Your task to perform on an android device: turn vacation reply on in the gmail app Image 0: 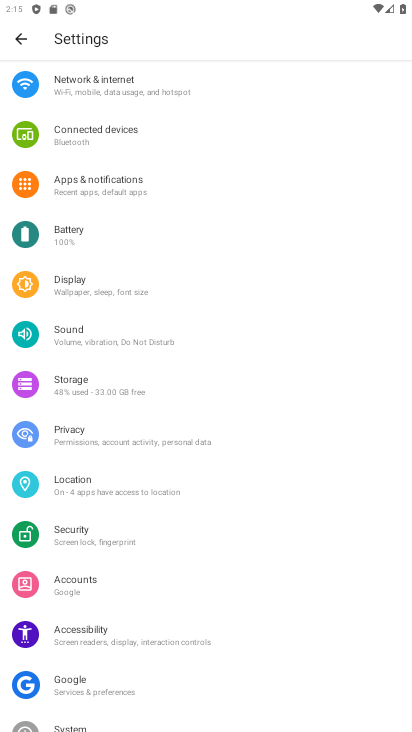
Step 0: press home button
Your task to perform on an android device: turn vacation reply on in the gmail app Image 1: 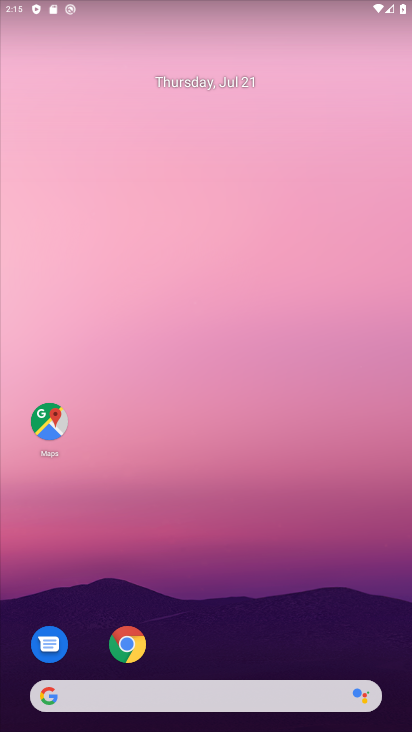
Step 1: drag from (298, 625) to (248, 195)
Your task to perform on an android device: turn vacation reply on in the gmail app Image 2: 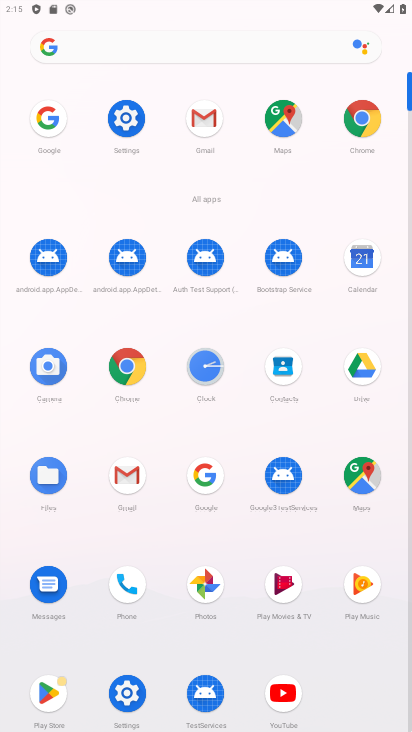
Step 2: click (198, 127)
Your task to perform on an android device: turn vacation reply on in the gmail app Image 3: 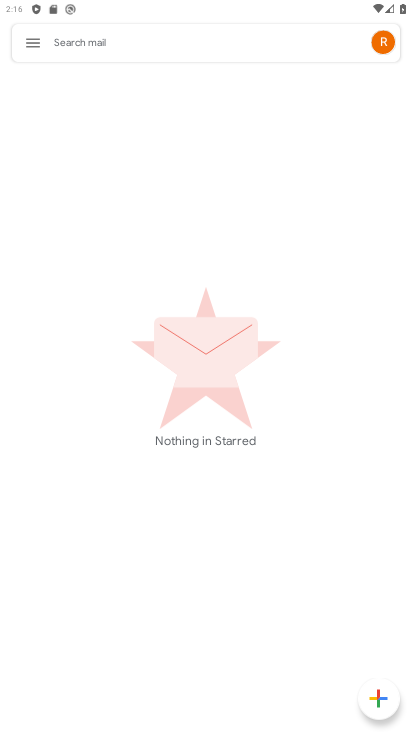
Step 3: click (31, 38)
Your task to perform on an android device: turn vacation reply on in the gmail app Image 4: 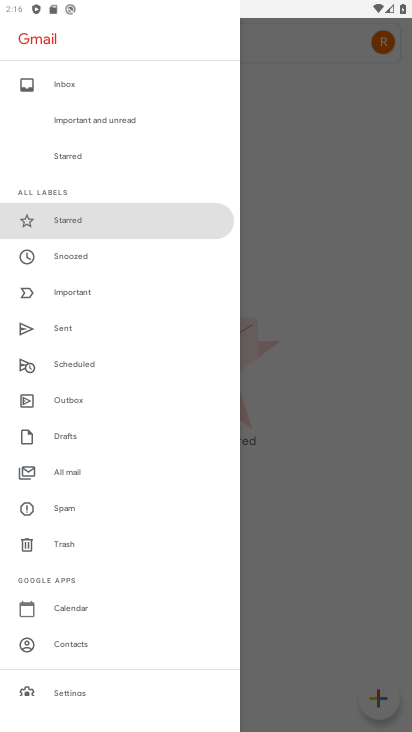
Step 4: click (74, 687)
Your task to perform on an android device: turn vacation reply on in the gmail app Image 5: 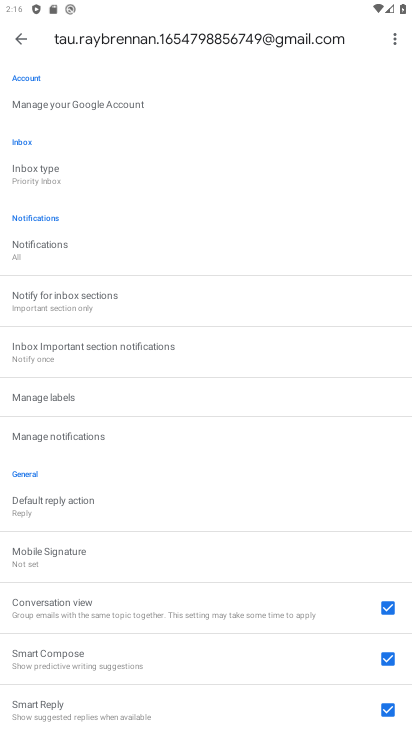
Step 5: drag from (159, 599) to (172, 339)
Your task to perform on an android device: turn vacation reply on in the gmail app Image 6: 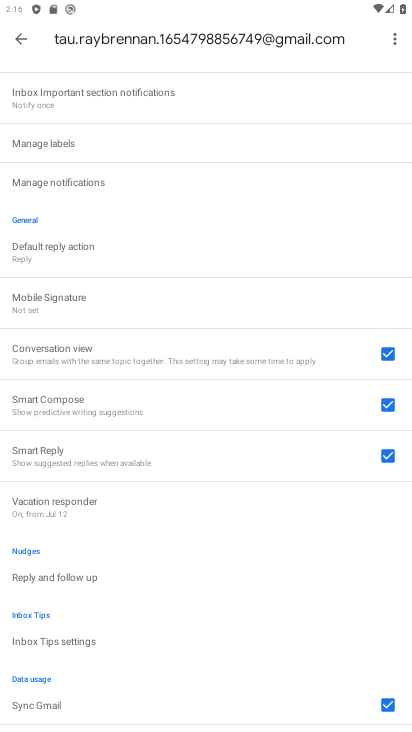
Step 6: click (116, 511)
Your task to perform on an android device: turn vacation reply on in the gmail app Image 7: 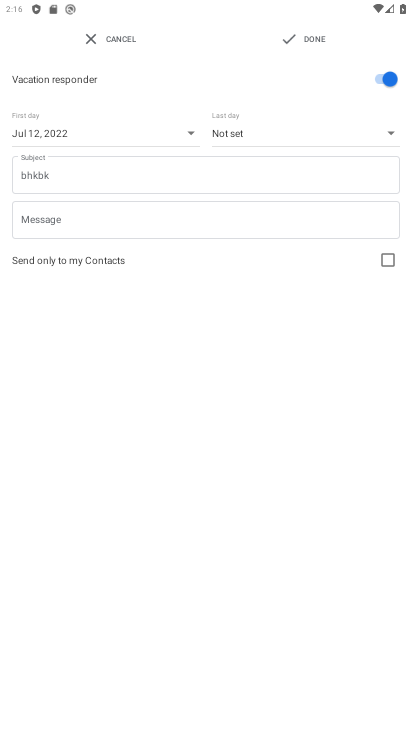
Step 7: click (213, 173)
Your task to perform on an android device: turn vacation reply on in the gmail app Image 8: 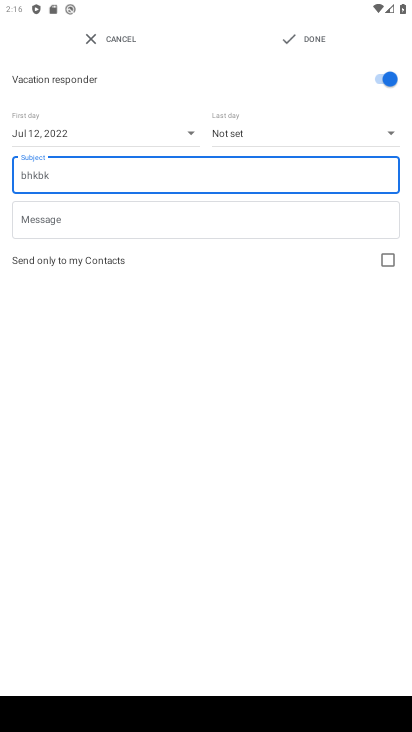
Step 8: type "vgvgj"
Your task to perform on an android device: turn vacation reply on in the gmail app Image 9: 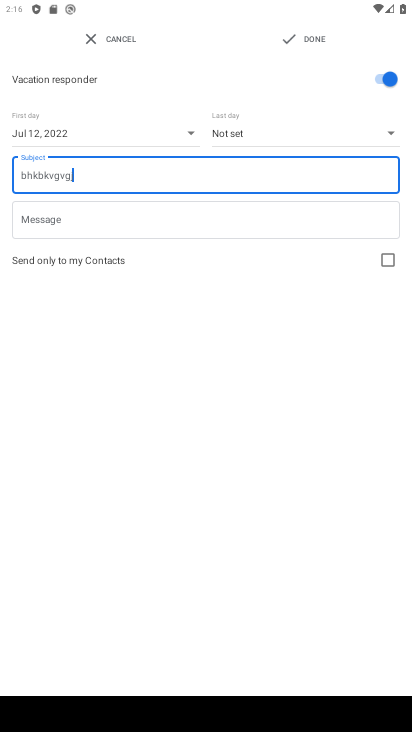
Step 9: click (308, 40)
Your task to perform on an android device: turn vacation reply on in the gmail app Image 10: 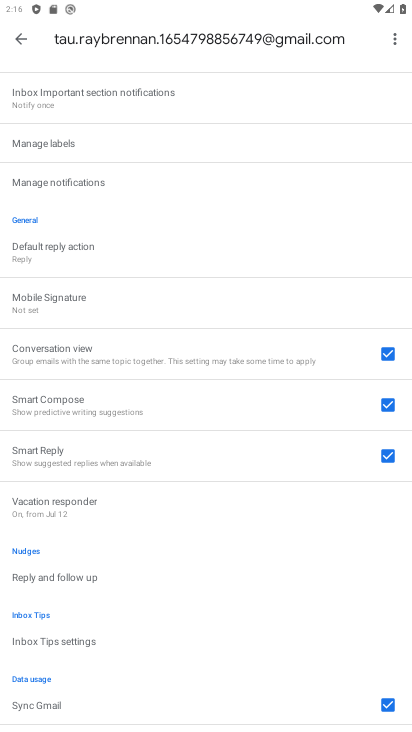
Step 10: task complete